Your task to perform on an android device: Clear all items from cart on target.com. Search for "jbl flip 4" on target.com, select the first entry, and add it to the cart. Image 0: 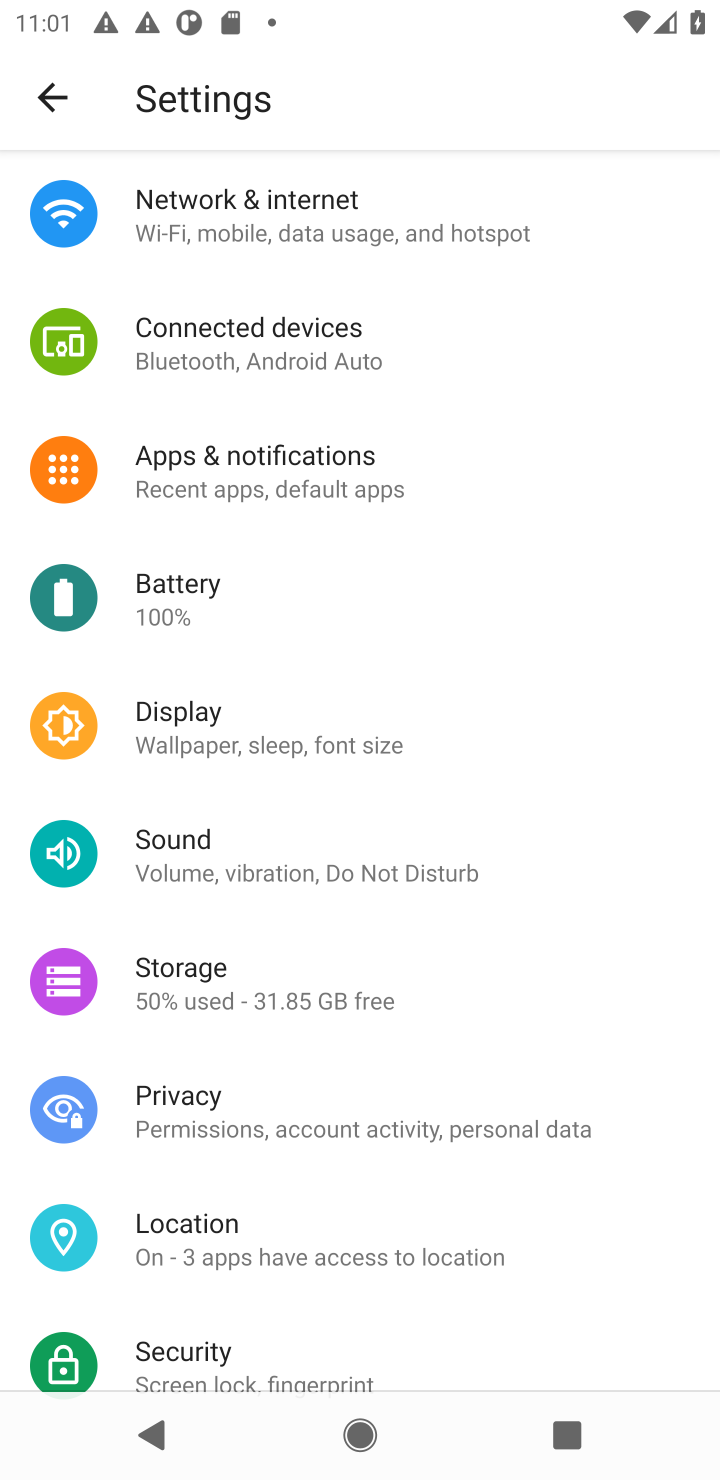
Step 0: task complete